Your task to perform on an android device: open a bookmark in the chrome app Image 0: 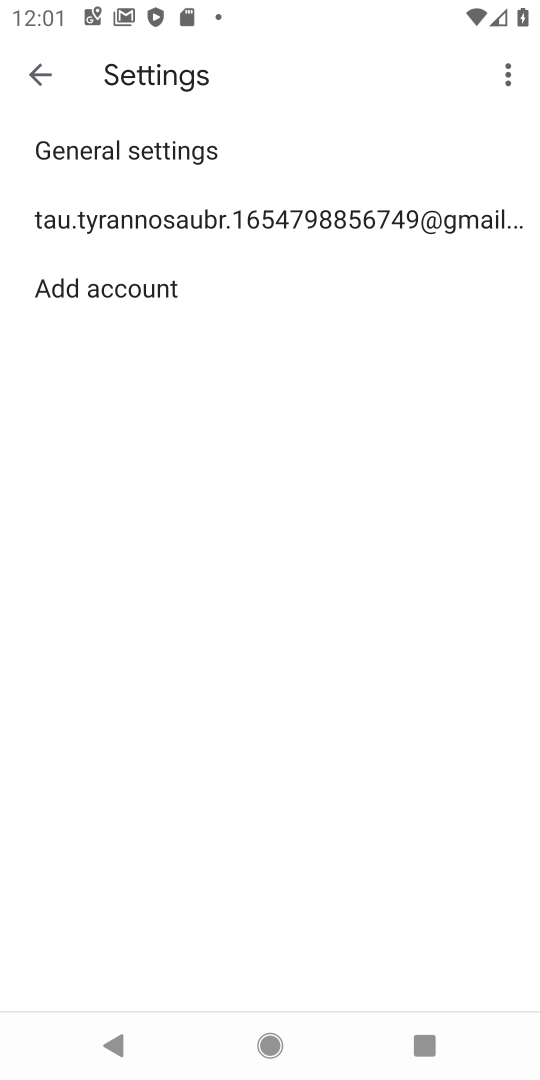
Step 0: press home button
Your task to perform on an android device: open a bookmark in the chrome app Image 1: 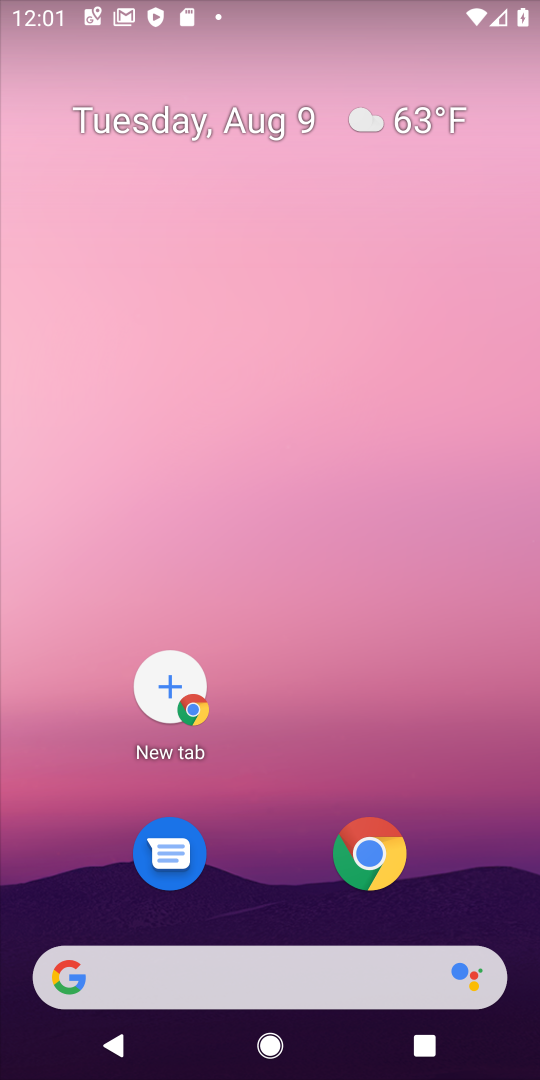
Step 1: click (378, 856)
Your task to perform on an android device: open a bookmark in the chrome app Image 2: 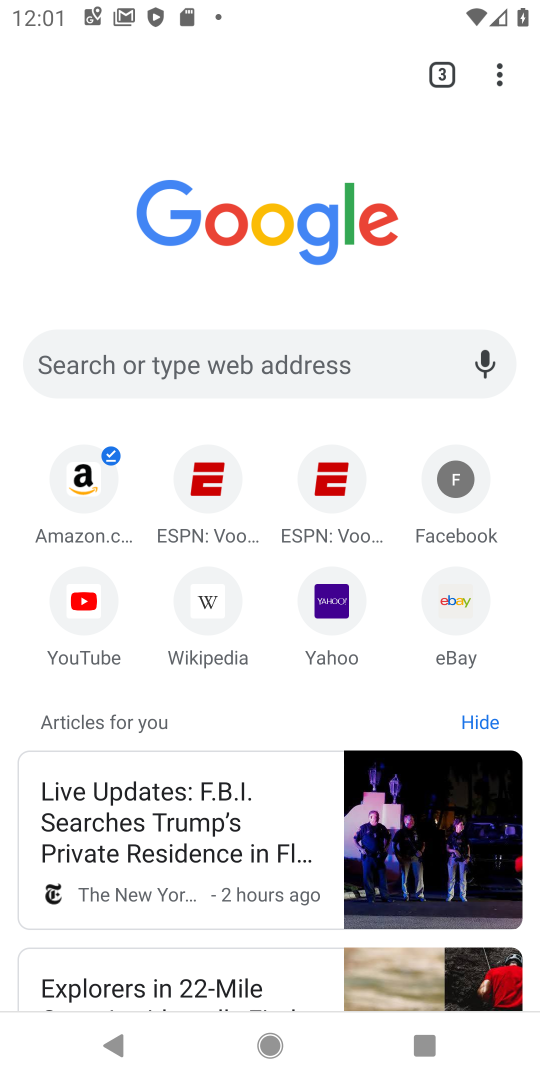
Step 2: click (492, 86)
Your task to perform on an android device: open a bookmark in the chrome app Image 3: 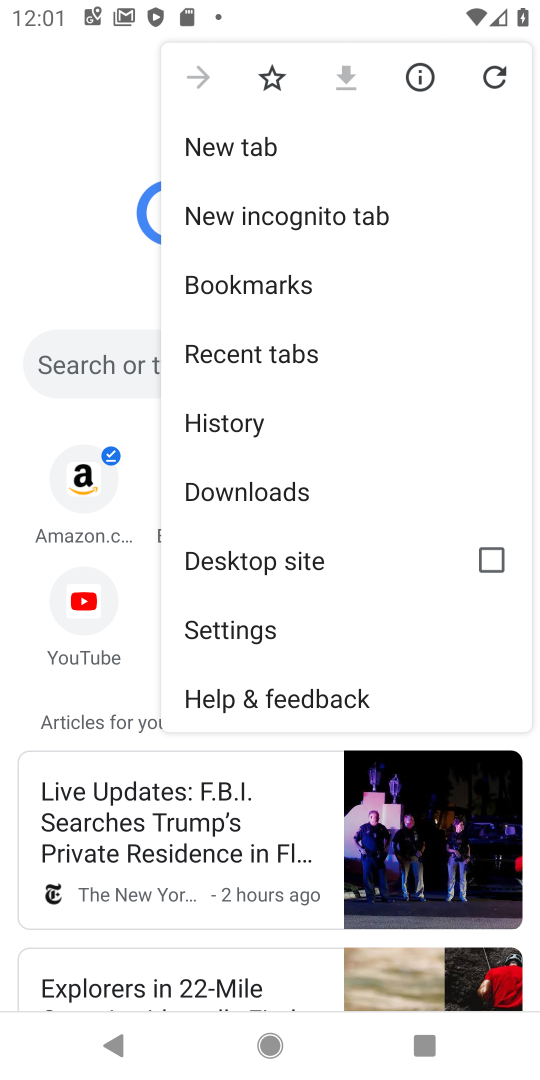
Step 3: click (269, 281)
Your task to perform on an android device: open a bookmark in the chrome app Image 4: 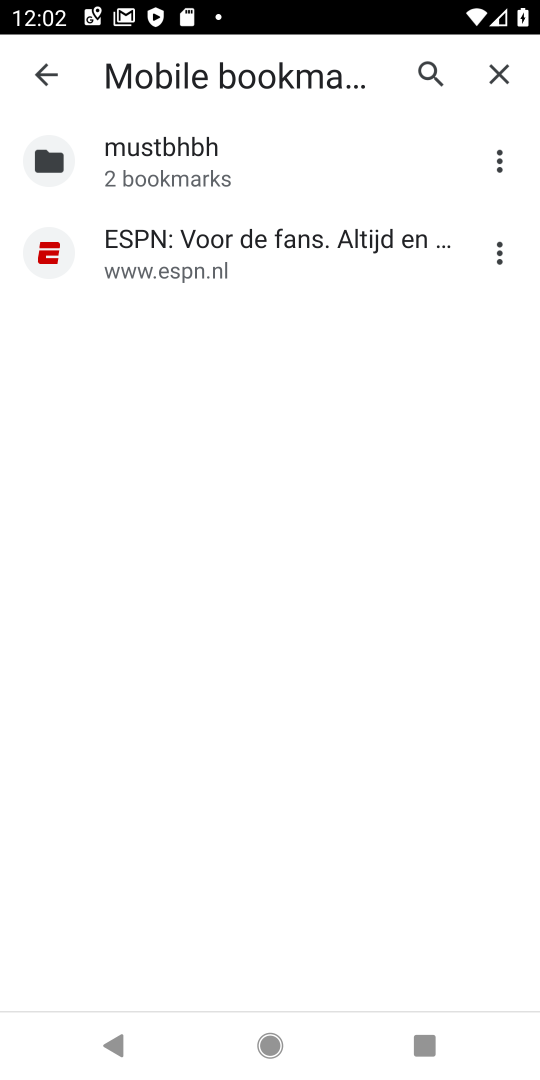
Step 4: click (161, 147)
Your task to perform on an android device: open a bookmark in the chrome app Image 5: 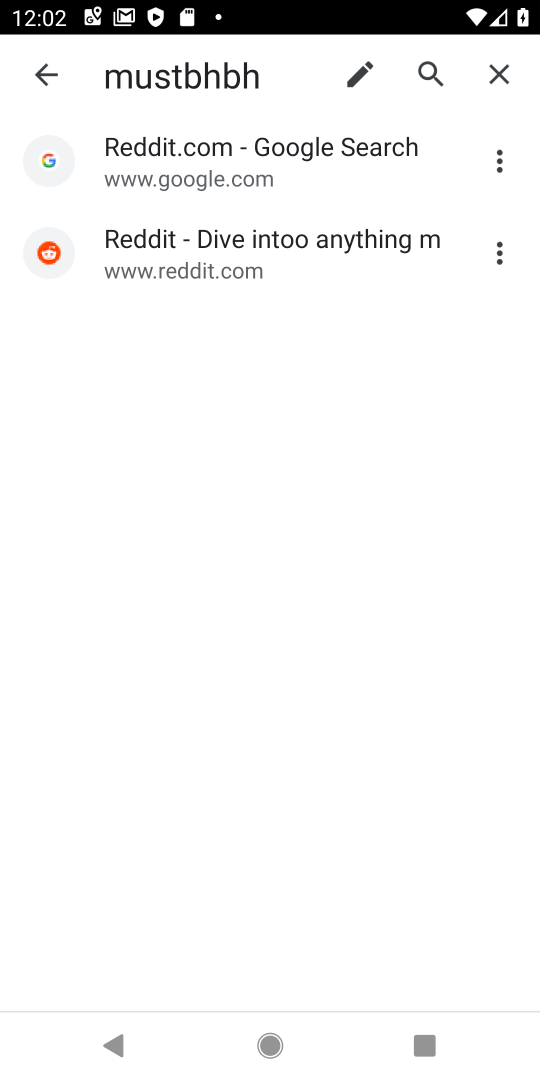
Step 5: click (161, 147)
Your task to perform on an android device: open a bookmark in the chrome app Image 6: 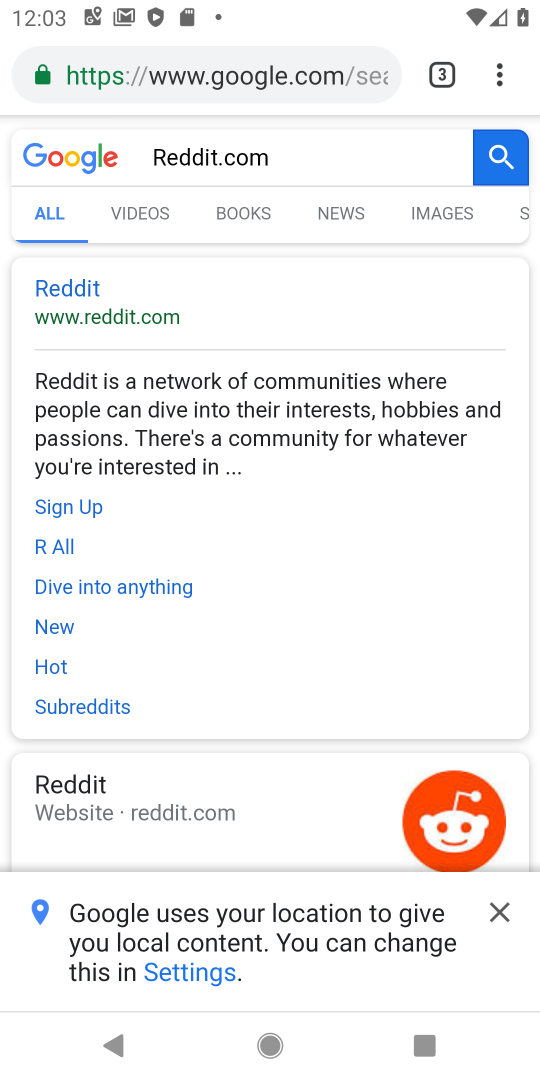
Step 6: task complete